Your task to perform on an android device: turn on location history Image 0: 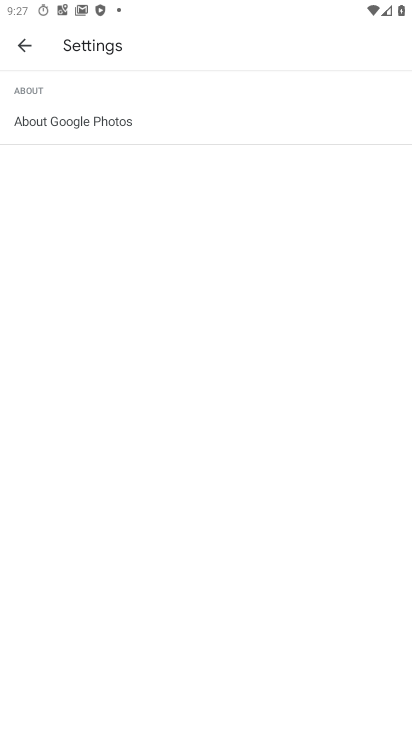
Step 0: press home button
Your task to perform on an android device: turn on location history Image 1: 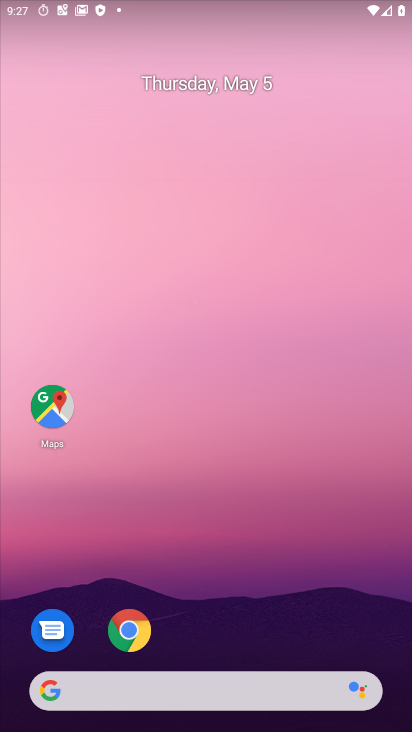
Step 1: drag from (192, 584) to (70, 111)
Your task to perform on an android device: turn on location history Image 2: 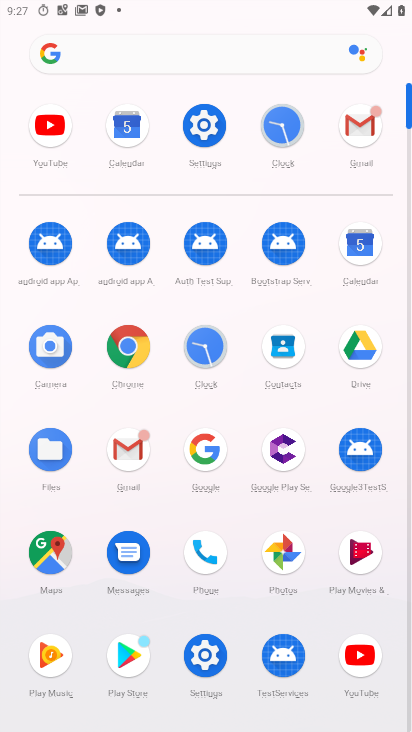
Step 2: click (206, 661)
Your task to perform on an android device: turn on location history Image 3: 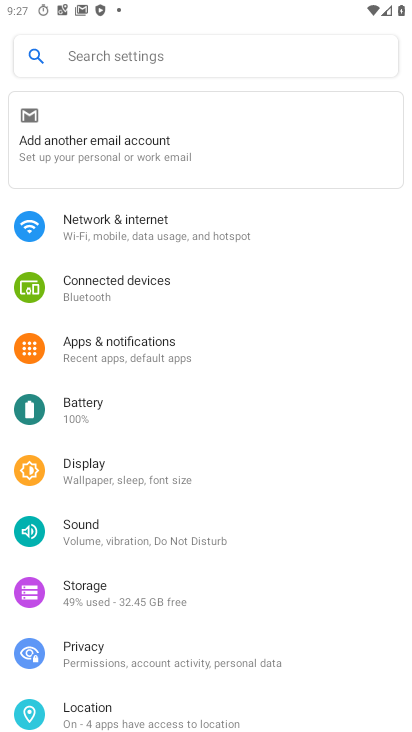
Step 3: drag from (130, 681) to (169, 270)
Your task to perform on an android device: turn on location history Image 4: 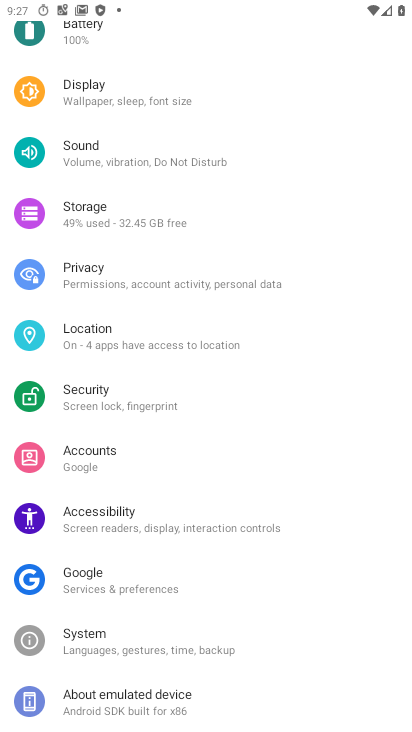
Step 4: click (106, 343)
Your task to perform on an android device: turn on location history Image 5: 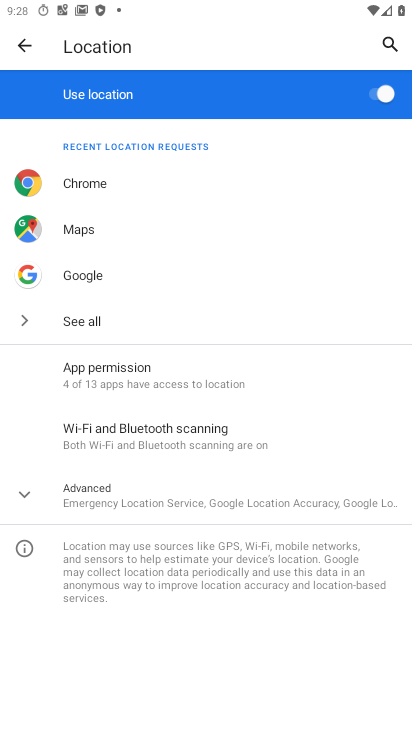
Step 5: click (116, 501)
Your task to perform on an android device: turn on location history Image 6: 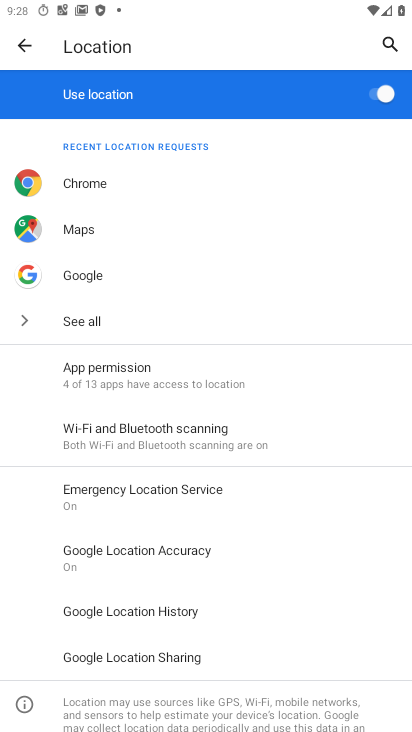
Step 6: click (100, 614)
Your task to perform on an android device: turn on location history Image 7: 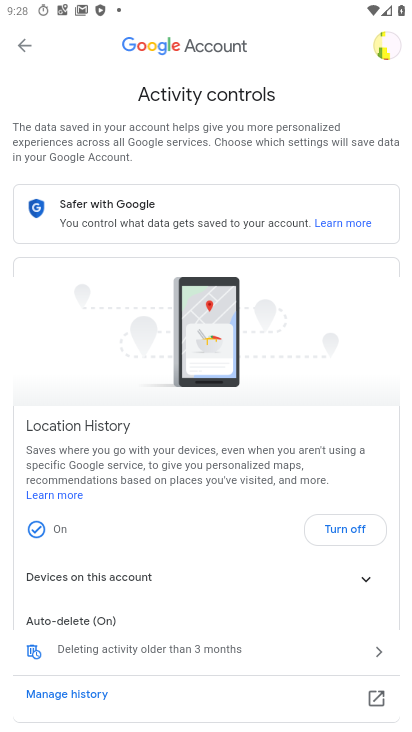
Step 7: task complete